Your task to perform on an android device: Open ESPN.com Image 0: 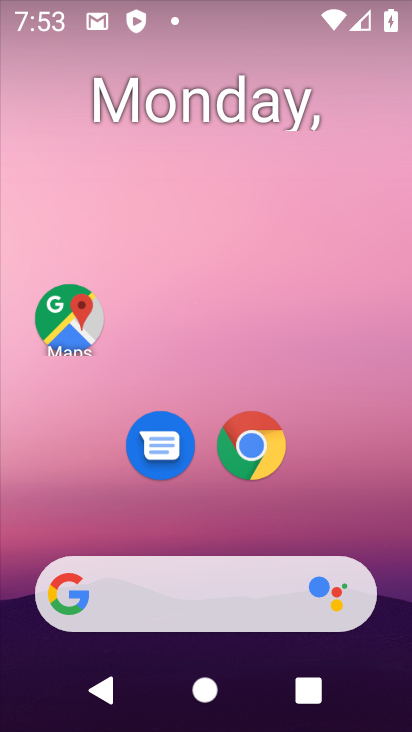
Step 0: click (217, 581)
Your task to perform on an android device: Open ESPN.com Image 1: 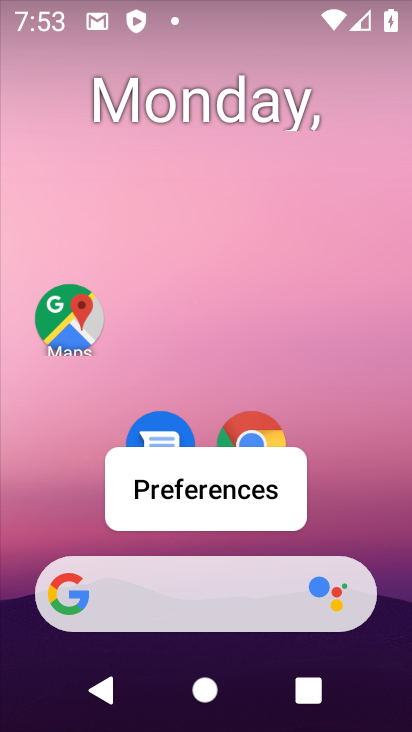
Step 1: click (277, 597)
Your task to perform on an android device: Open ESPN.com Image 2: 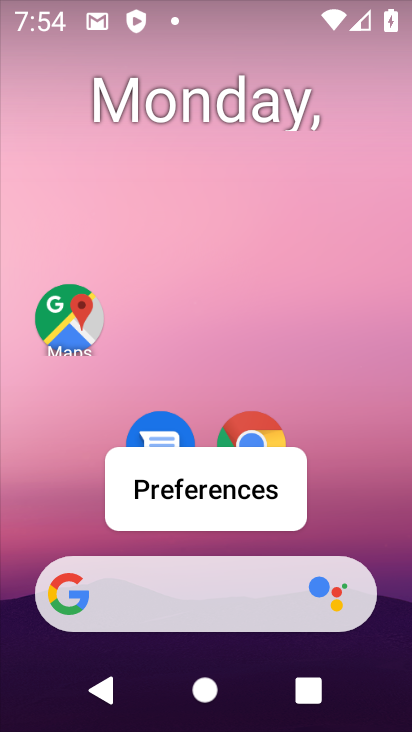
Step 2: click (277, 597)
Your task to perform on an android device: Open ESPN.com Image 3: 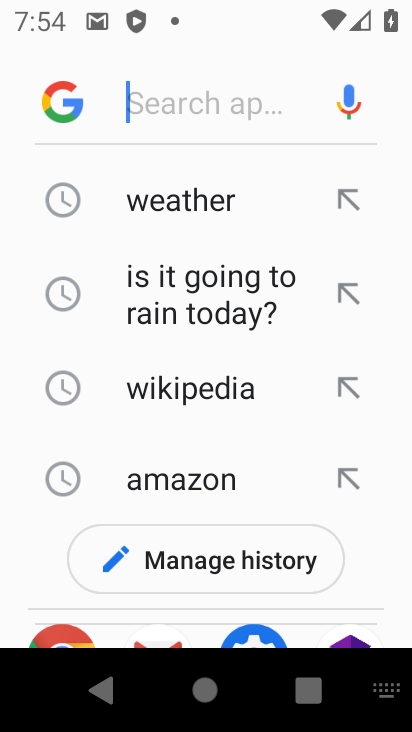
Step 3: type "espn.com"
Your task to perform on an android device: Open ESPN.com Image 4: 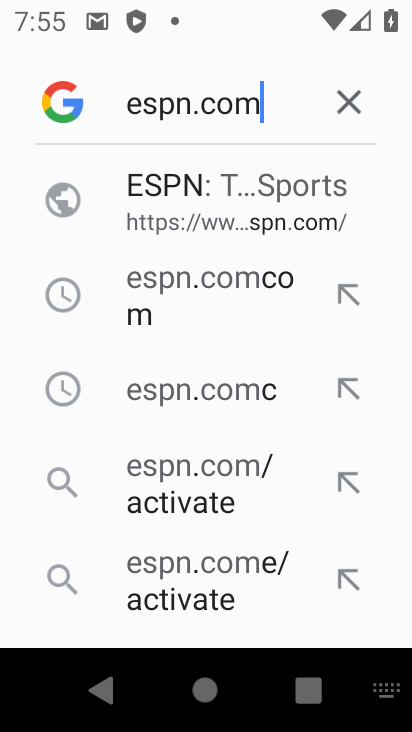
Step 4: click (267, 224)
Your task to perform on an android device: Open ESPN.com Image 5: 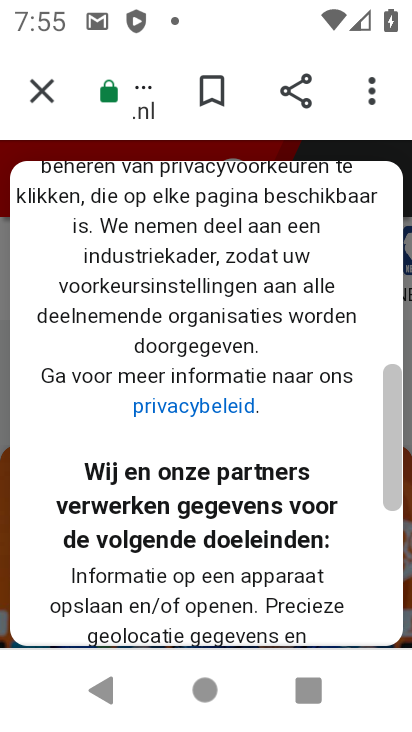
Step 5: task complete